Your task to perform on an android device: delete browsing data in the chrome app Image 0: 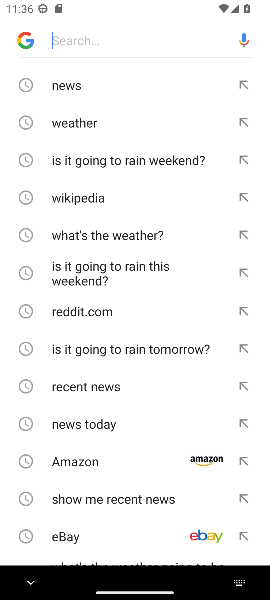
Step 0: press home button
Your task to perform on an android device: delete browsing data in the chrome app Image 1: 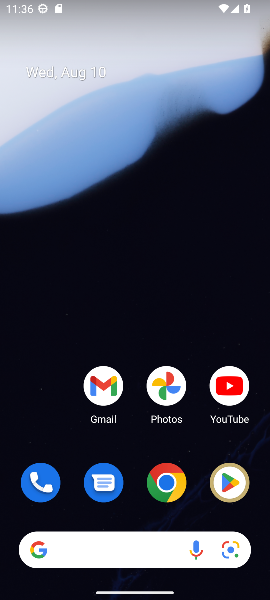
Step 1: task complete